Your task to perform on an android device: change the upload size in google photos Image 0: 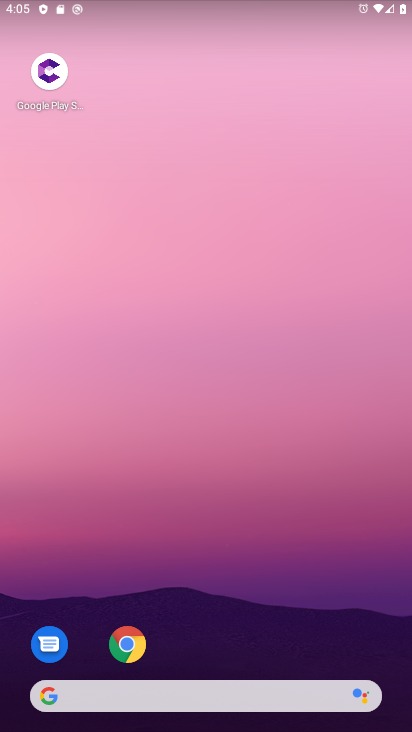
Step 0: drag from (247, 640) to (279, 116)
Your task to perform on an android device: change the upload size in google photos Image 1: 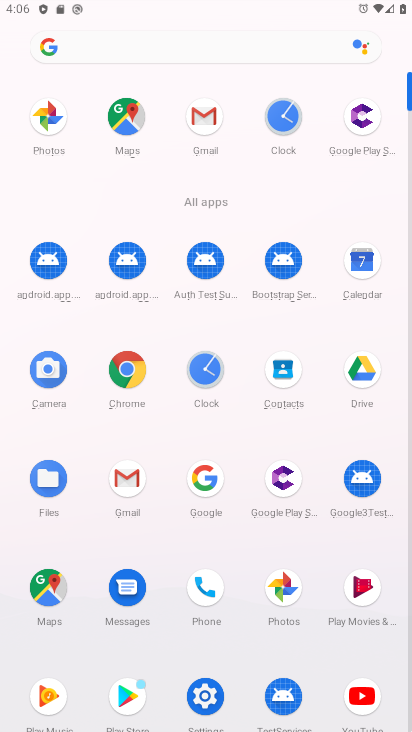
Step 1: click (49, 113)
Your task to perform on an android device: change the upload size in google photos Image 2: 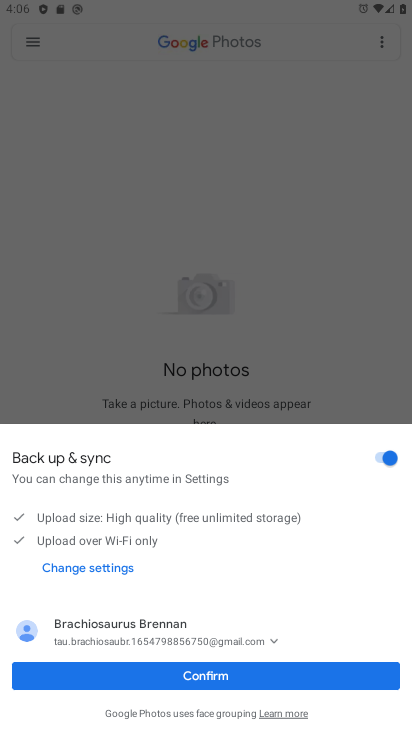
Step 2: click (199, 674)
Your task to perform on an android device: change the upload size in google photos Image 3: 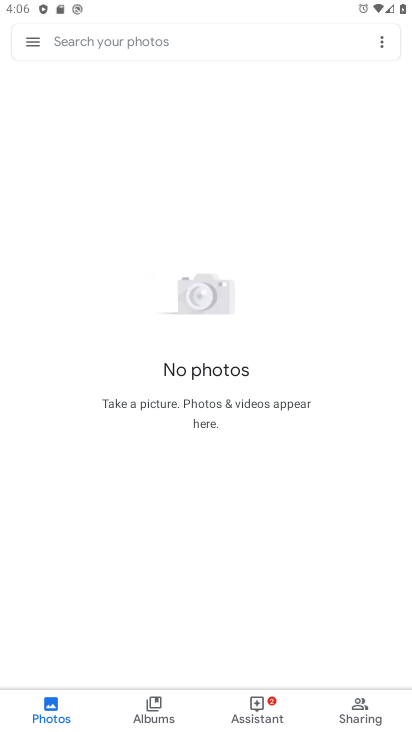
Step 3: click (41, 41)
Your task to perform on an android device: change the upload size in google photos Image 4: 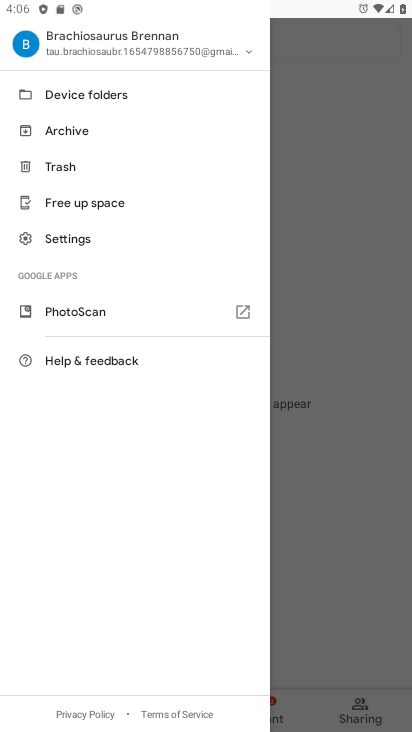
Step 4: click (79, 240)
Your task to perform on an android device: change the upload size in google photos Image 5: 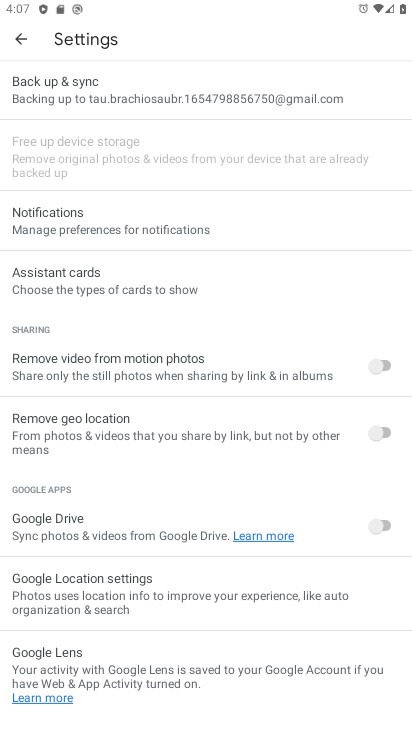
Step 5: click (123, 95)
Your task to perform on an android device: change the upload size in google photos Image 6: 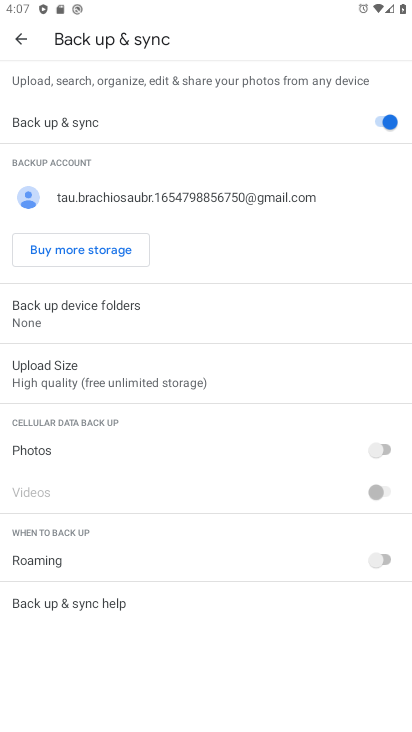
Step 6: click (64, 382)
Your task to perform on an android device: change the upload size in google photos Image 7: 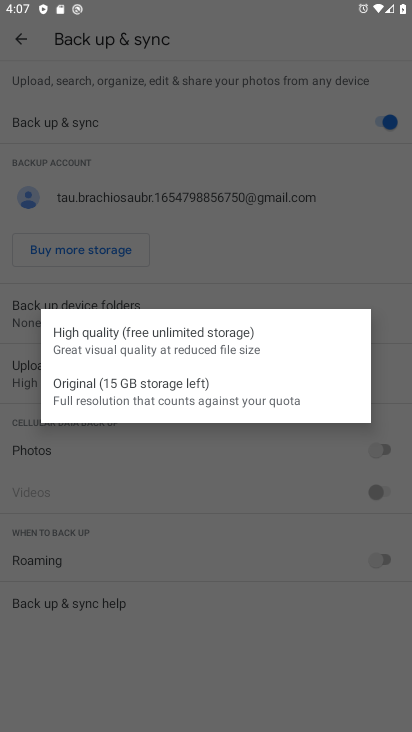
Step 7: click (84, 392)
Your task to perform on an android device: change the upload size in google photos Image 8: 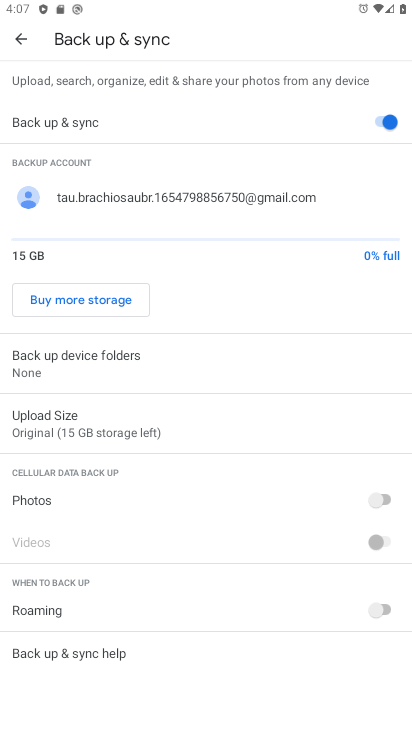
Step 8: task complete